Your task to perform on an android device: toggle translation in the chrome app Image 0: 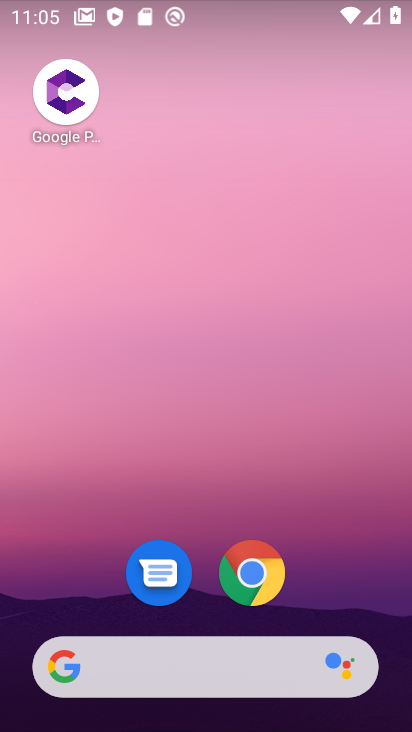
Step 0: click (251, 572)
Your task to perform on an android device: toggle translation in the chrome app Image 1: 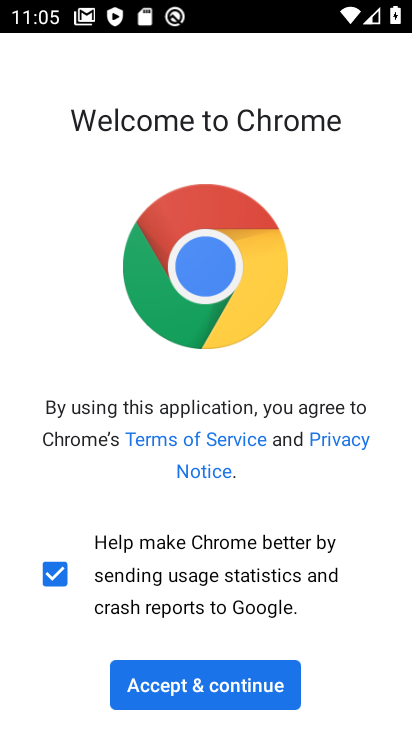
Step 1: click (210, 692)
Your task to perform on an android device: toggle translation in the chrome app Image 2: 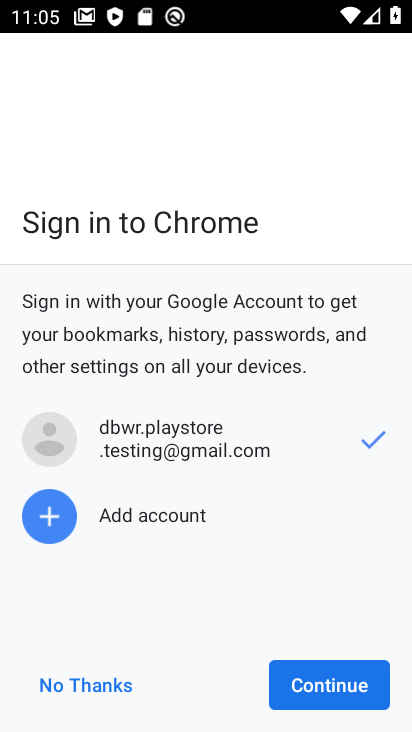
Step 2: click (330, 691)
Your task to perform on an android device: toggle translation in the chrome app Image 3: 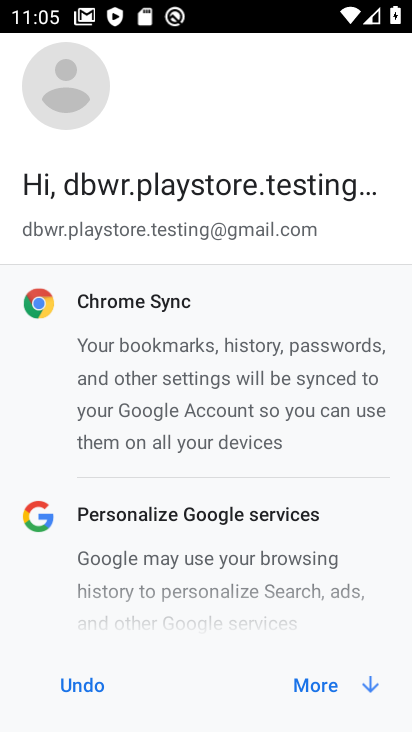
Step 3: click (327, 687)
Your task to perform on an android device: toggle translation in the chrome app Image 4: 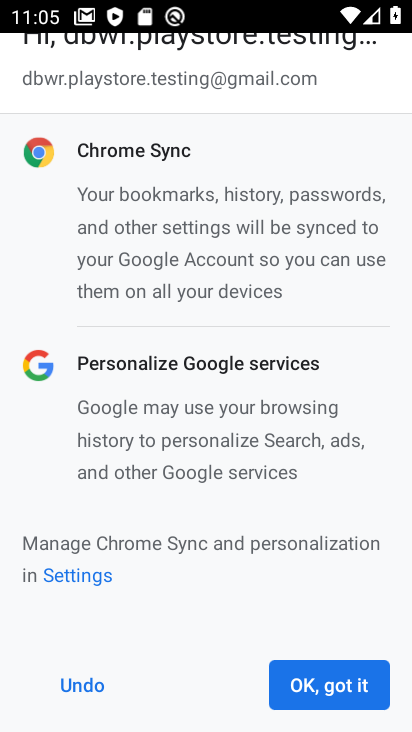
Step 4: click (327, 686)
Your task to perform on an android device: toggle translation in the chrome app Image 5: 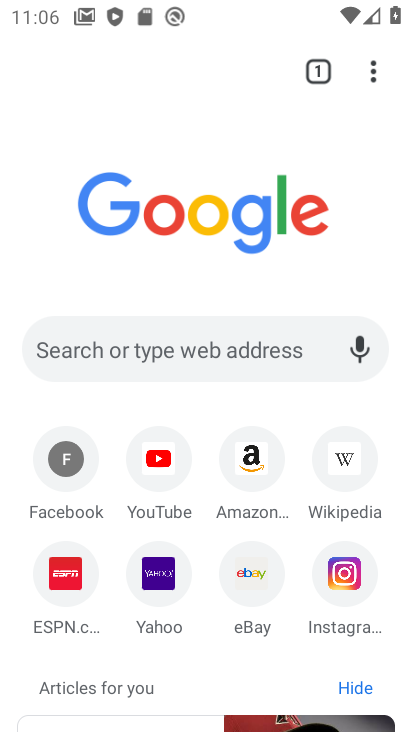
Step 5: click (376, 69)
Your task to perform on an android device: toggle translation in the chrome app Image 6: 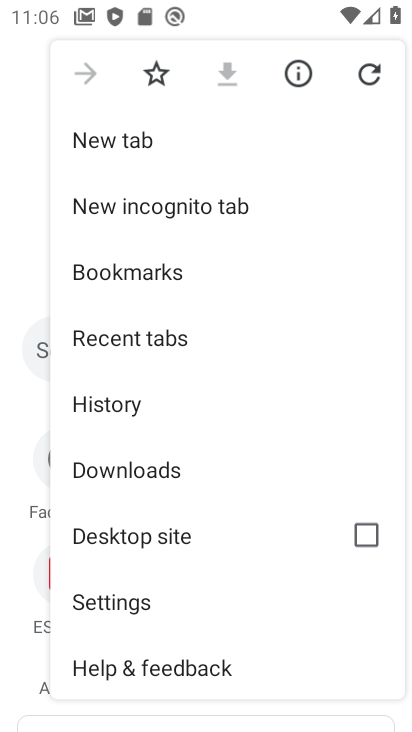
Step 6: click (122, 604)
Your task to perform on an android device: toggle translation in the chrome app Image 7: 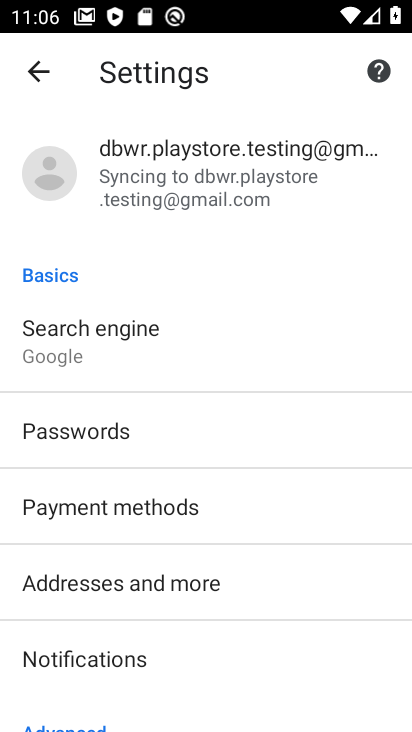
Step 7: drag from (131, 553) to (219, 452)
Your task to perform on an android device: toggle translation in the chrome app Image 8: 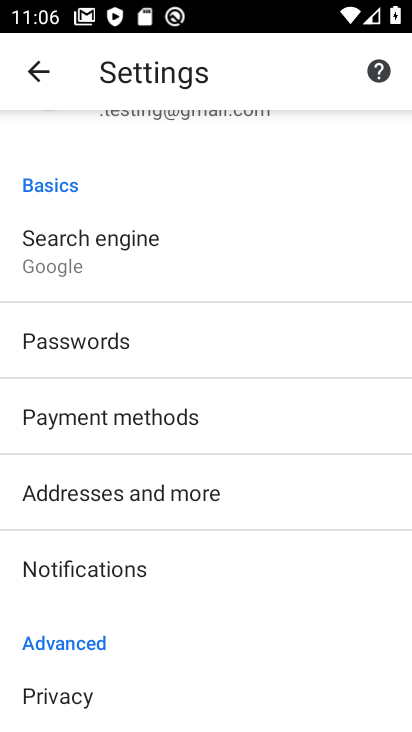
Step 8: drag from (160, 591) to (228, 465)
Your task to perform on an android device: toggle translation in the chrome app Image 9: 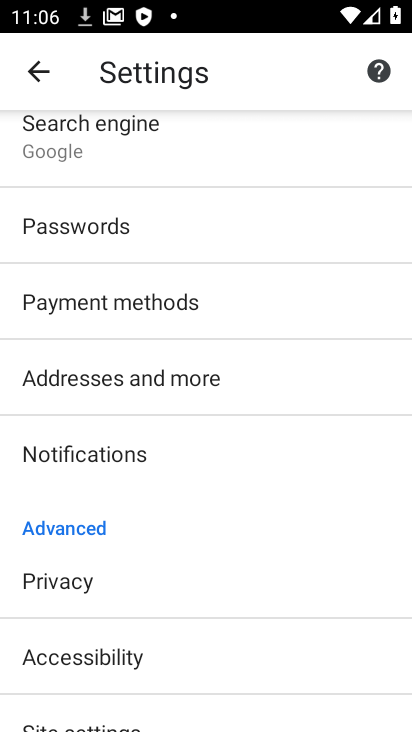
Step 9: drag from (143, 594) to (211, 461)
Your task to perform on an android device: toggle translation in the chrome app Image 10: 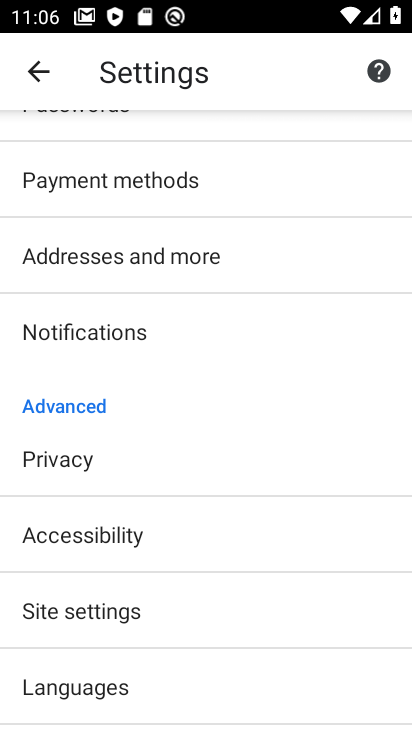
Step 10: drag from (170, 609) to (208, 494)
Your task to perform on an android device: toggle translation in the chrome app Image 11: 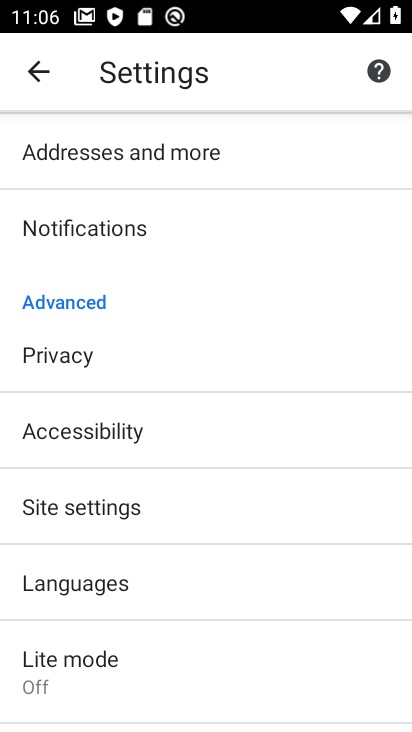
Step 11: click (101, 590)
Your task to perform on an android device: toggle translation in the chrome app Image 12: 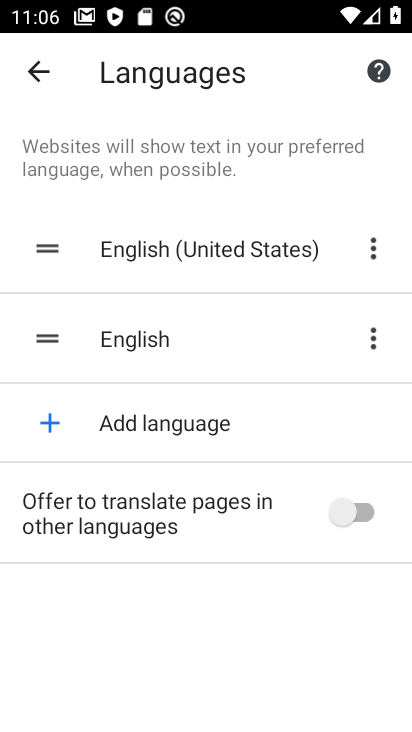
Step 12: click (342, 512)
Your task to perform on an android device: toggle translation in the chrome app Image 13: 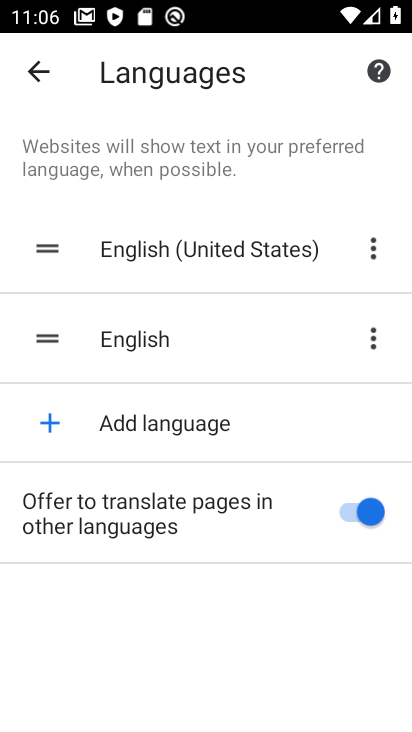
Step 13: task complete